Your task to perform on an android device: refresh tabs in the chrome app Image 0: 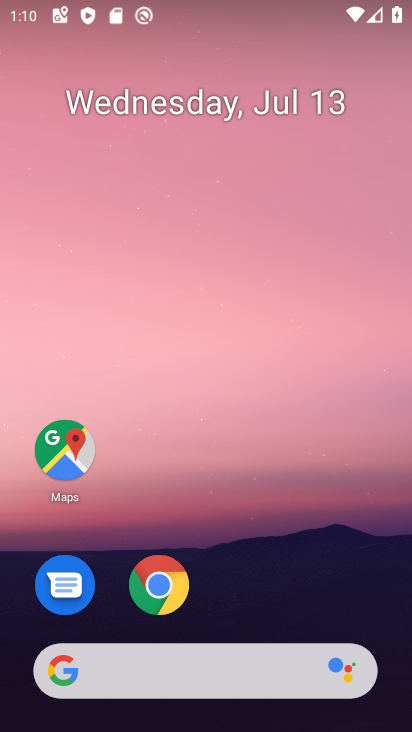
Step 0: click (166, 580)
Your task to perform on an android device: refresh tabs in the chrome app Image 1: 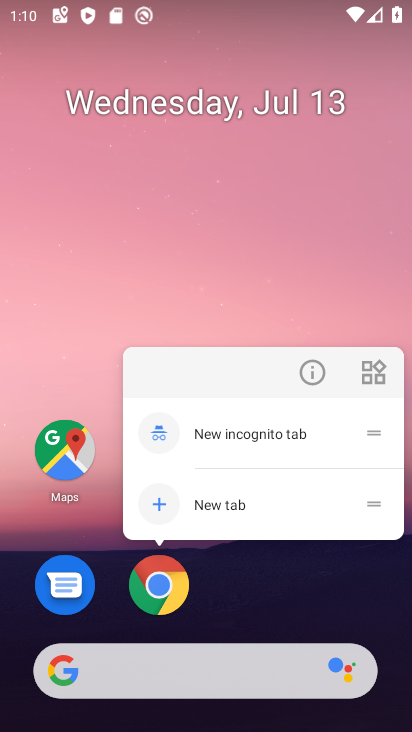
Step 1: click (165, 579)
Your task to perform on an android device: refresh tabs in the chrome app Image 2: 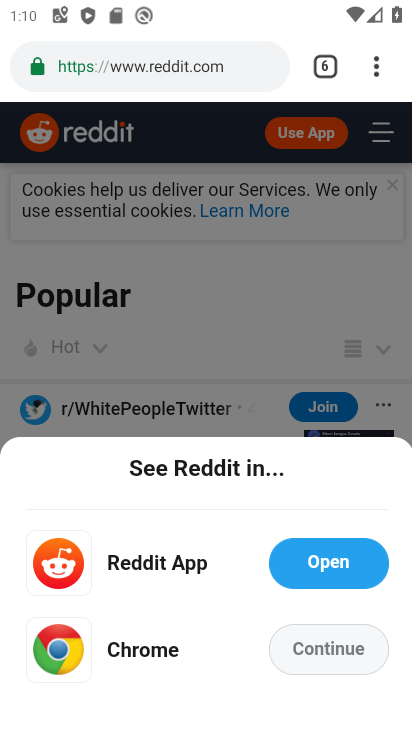
Step 2: click (373, 83)
Your task to perform on an android device: refresh tabs in the chrome app Image 3: 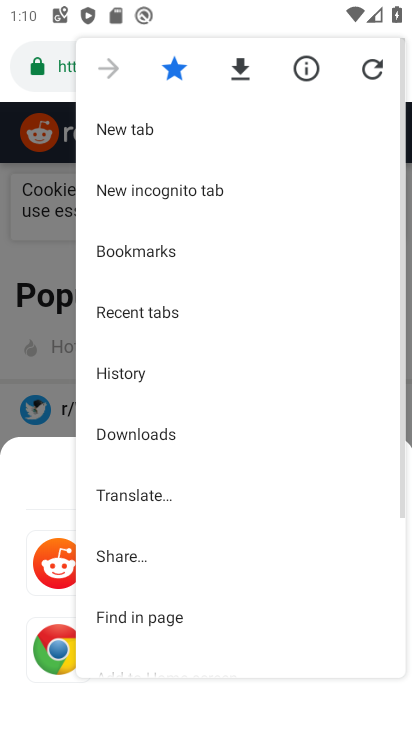
Step 3: click (374, 65)
Your task to perform on an android device: refresh tabs in the chrome app Image 4: 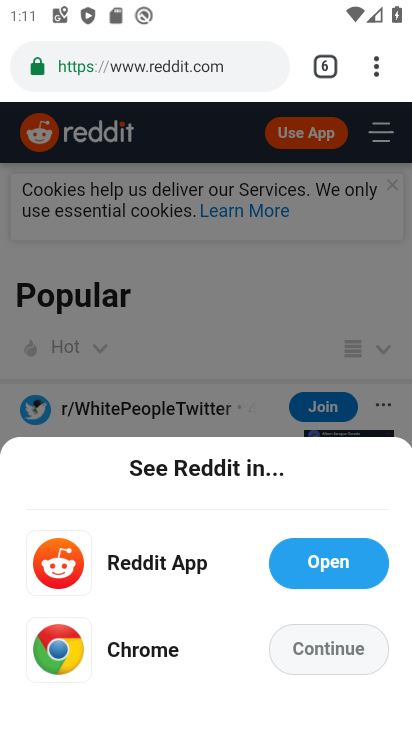
Step 4: task complete